Your task to perform on an android device: Go to Wikipedia Image 0: 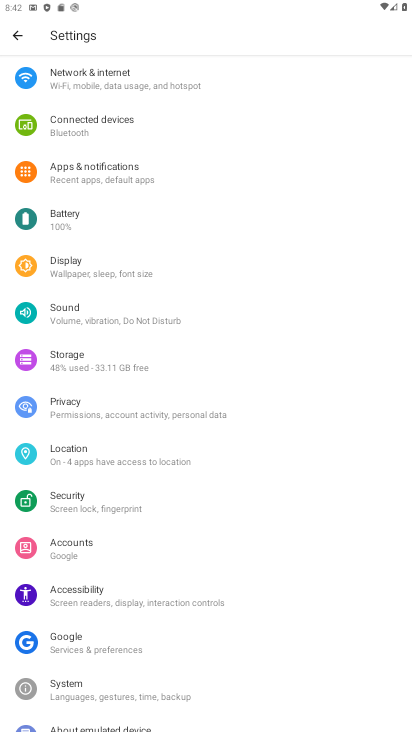
Step 0: press back button
Your task to perform on an android device: Go to Wikipedia Image 1: 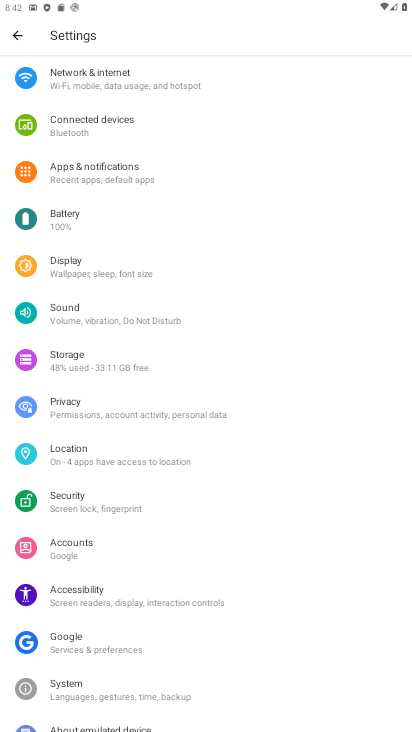
Step 1: press back button
Your task to perform on an android device: Go to Wikipedia Image 2: 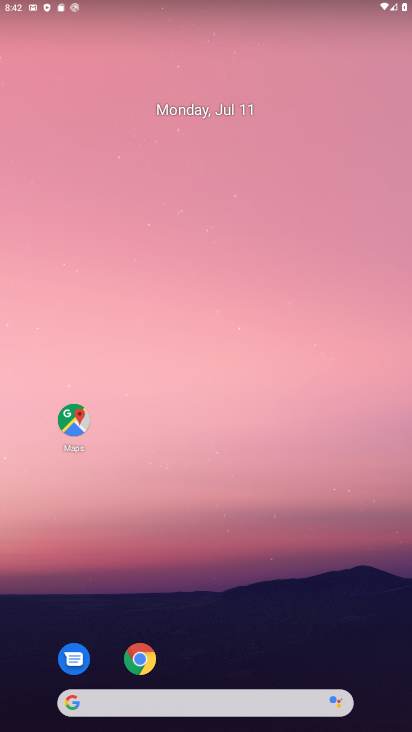
Step 2: drag from (228, 508) to (148, 37)
Your task to perform on an android device: Go to Wikipedia Image 3: 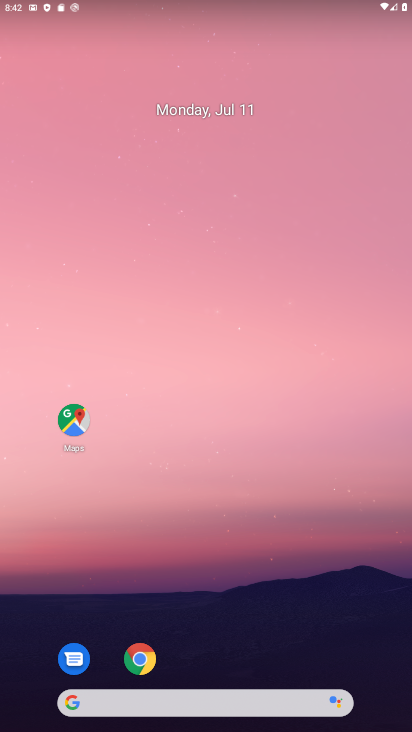
Step 3: drag from (168, 501) to (113, 99)
Your task to perform on an android device: Go to Wikipedia Image 4: 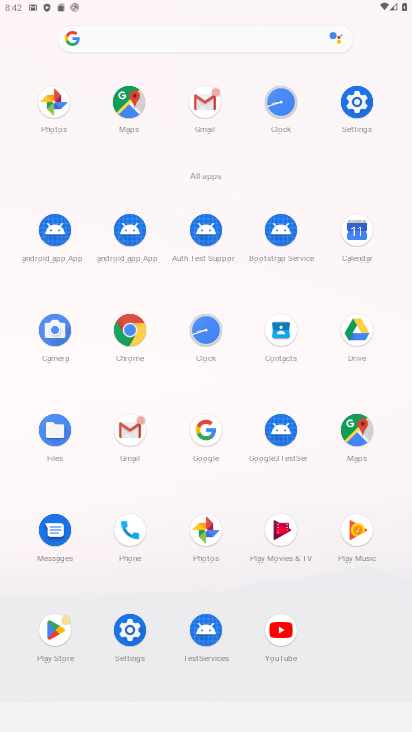
Step 4: drag from (180, 460) to (177, 65)
Your task to perform on an android device: Go to Wikipedia Image 5: 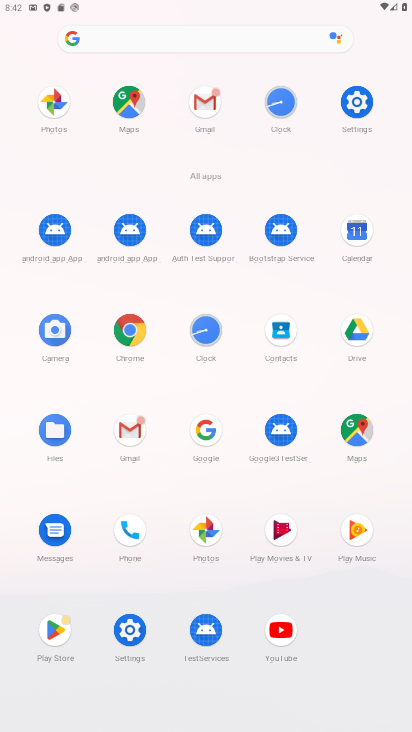
Step 5: click (139, 304)
Your task to perform on an android device: Go to Wikipedia Image 6: 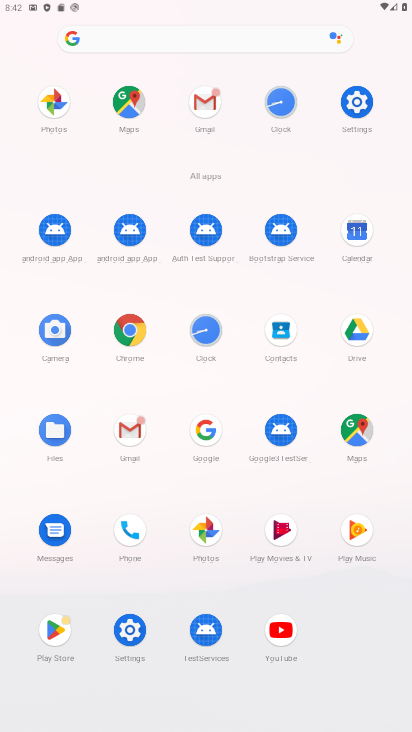
Step 6: click (133, 317)
Your task to perform on an android device: Go to Wikipedia Image 7: 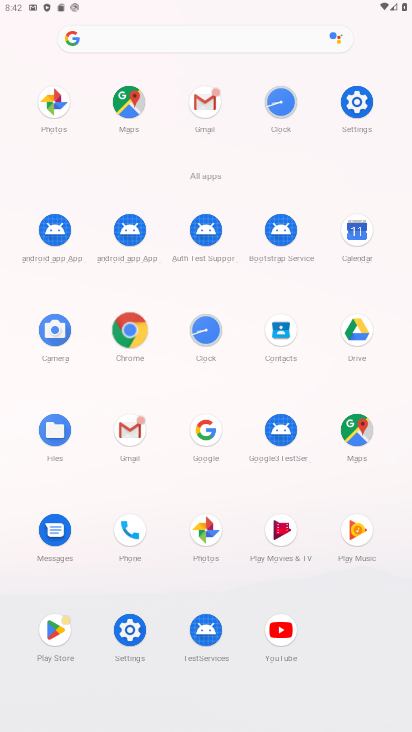
Step 7: click (132, 320)
Your task to perform on an android device: Go to Wikipedia Image 8: 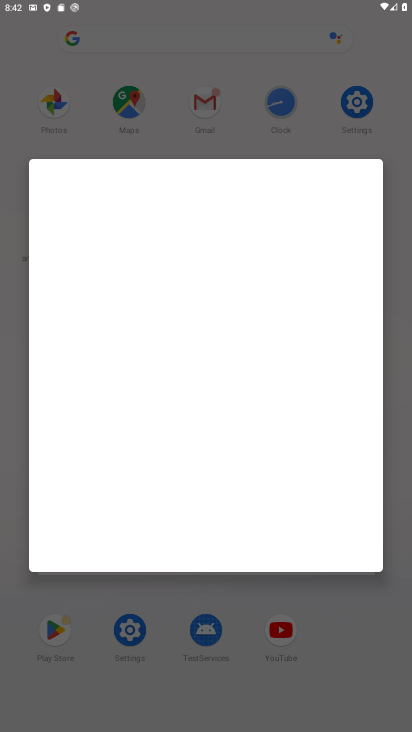
Step 8: click (130, 318)
Your task to perform on an android device: Go to Wikipedia Image 9: 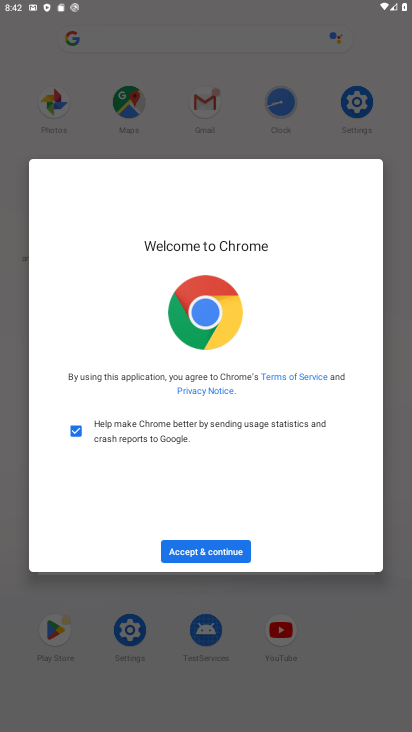
Step 9: click (190, 541)
Your task to perform on an android device: Go to Wikipedia Image 10: 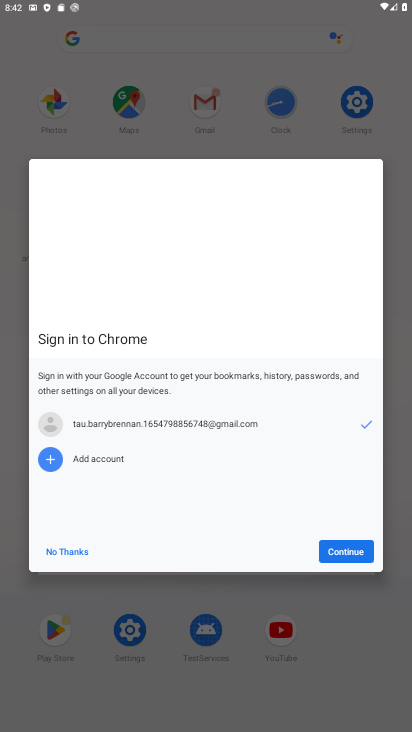
Step 10: click (348, 546)
Your task to perform on an android device: Go to Wikipedia Image 11: 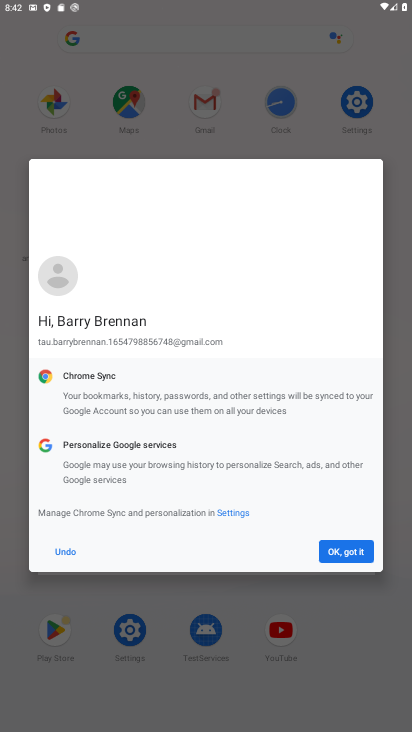
Step 11: click (352, 551)
Your task to perform on an android device: Go to Wikipedia Image 12: 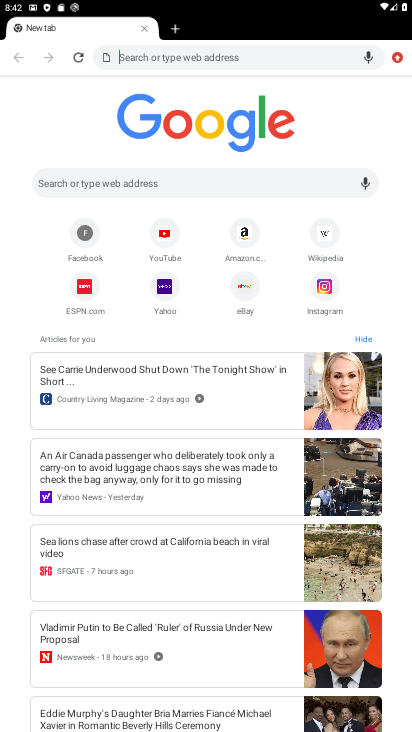
Step 12: click (330, 226)
Your task to perform on an android device: Go to Wikipedia Image 13: 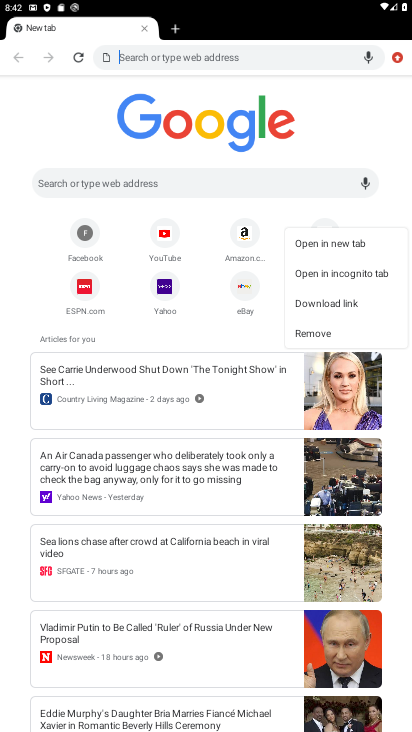
Step 13: click (333, 238)
Your task to perform on an android device: Go to Wikipedia Image 14: 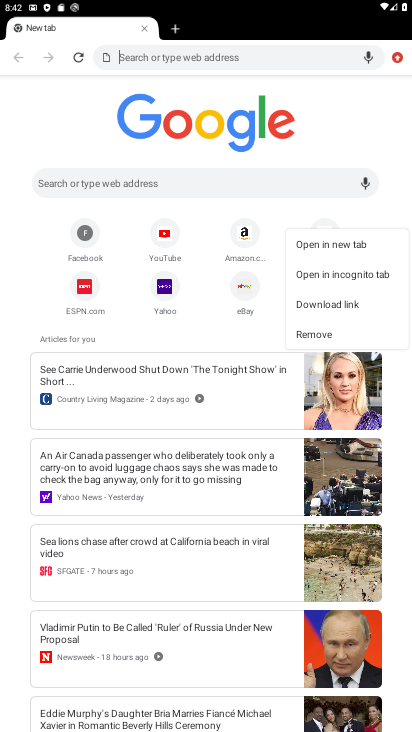
Step 14: click (323, 241)
Your task to perform on an android device: Go to Wikipedia Image 15: 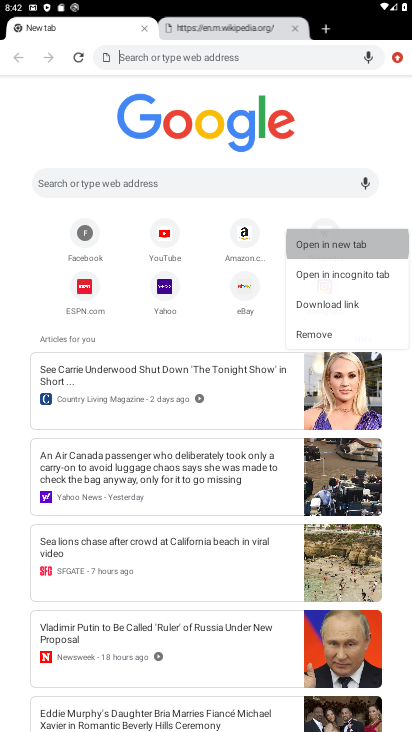
Step 15: click (319, 239)
Your task to perform on an android device: Go to Wikipedia Image 16: 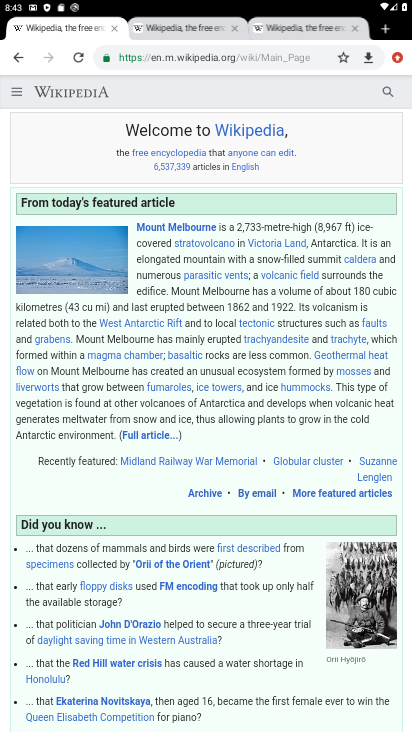
Step 16: task complete